Your task to perform on an android device: Go to network settings Image 0: 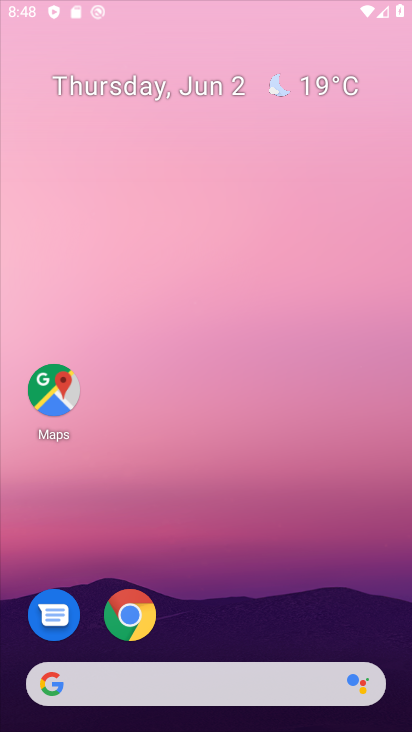
Step 0: click (217, 688)
Your task to perform on an android device: Go to network settings Image 1: 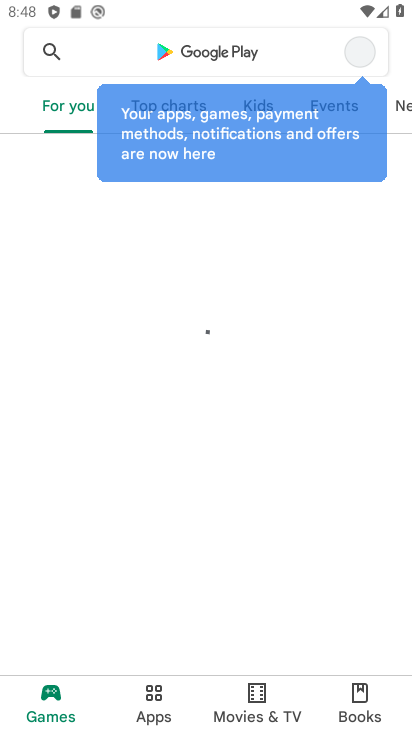
Step 1: press home button
Your task to perform on an android device: Go to network settings Image 2: 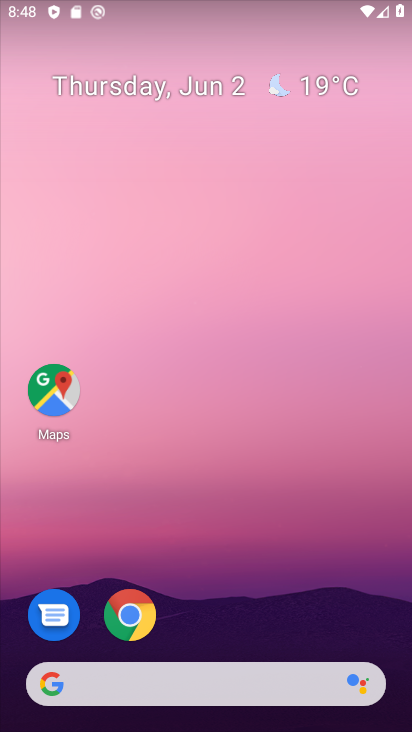
Step 2: drag from (237, 618) to (148, 188)
Your task to perform on an android device: Go to network settings Image 3: 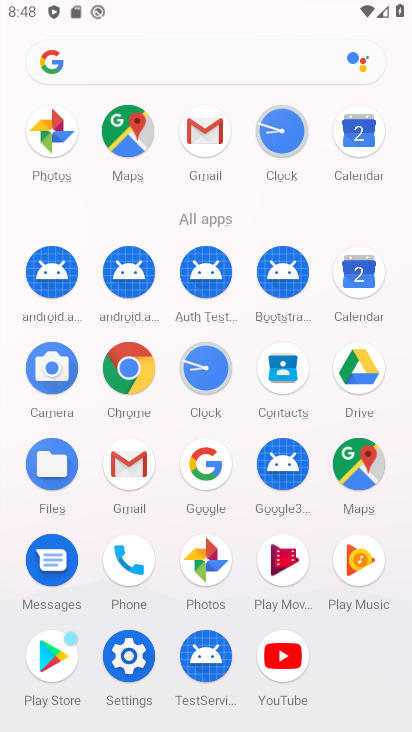
Step 3: click (132, 651)
Your task to perform on an android device: Go to network settings Image 4: 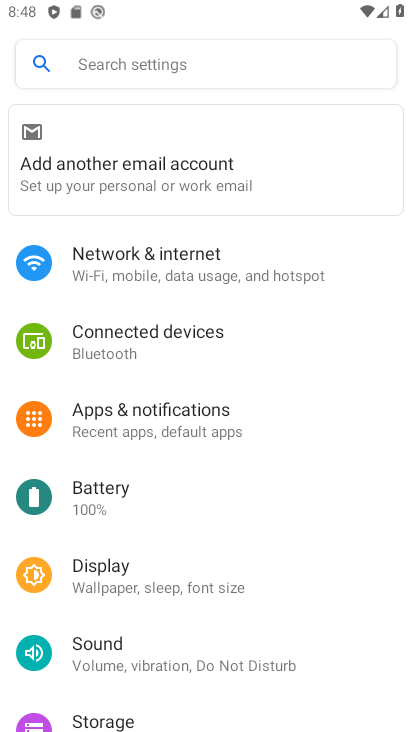
Step 4: click (169, 286)
Your task to perform on an android device: Go to network settings Image 5: 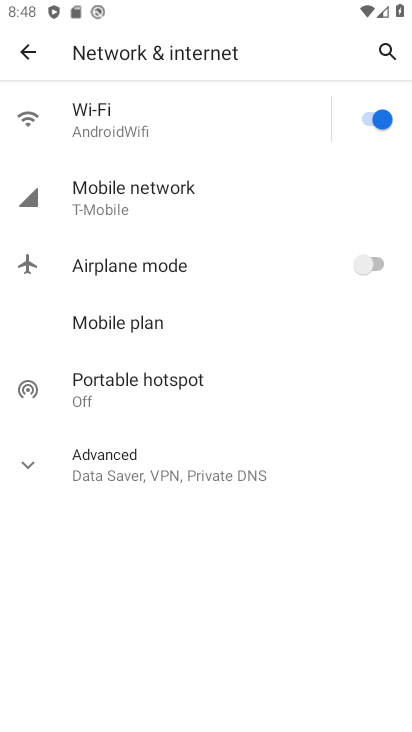
Step 5: task complete